Your task to perform on an android device: change your default location settings in chrome Image 0: 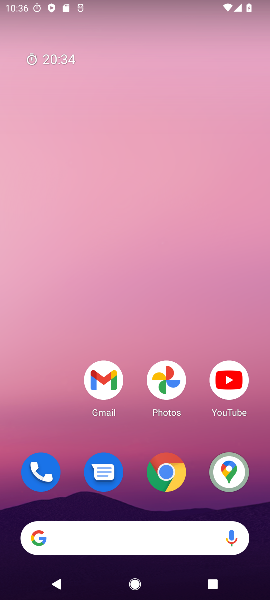
Step 0: click (164, 478)
Your task to perform on an android device: change your default location settings in chrome Image 1: 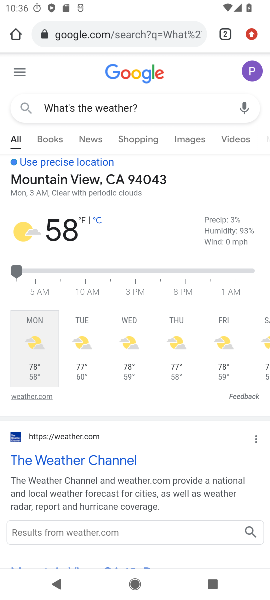
Step 1: click (251, 34)
Your task to perform on an android device: change your default location settings in chrome Image 2: 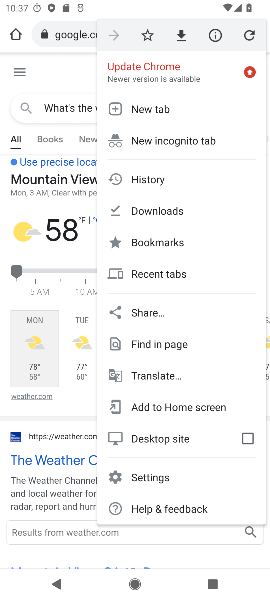
Step 2: click (175, 483)
Your task to perform on an android device: change your default location settings in chrome Image 3: 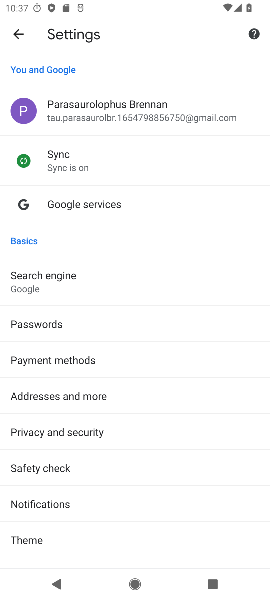
Step 3: drag from (176, 539) to (173, 205)
Your task to perform on an android device: change your default location settings in chrome Image 4: 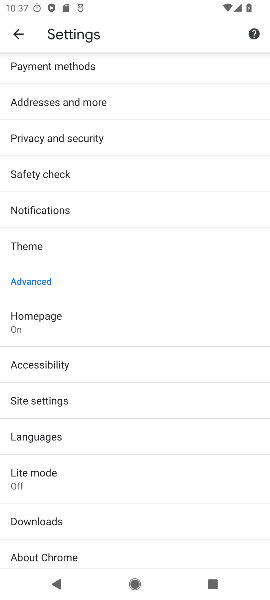
Step 4: click (110, 398)
Your task to perform on an android device: change your default location settings in chrome Image 5: 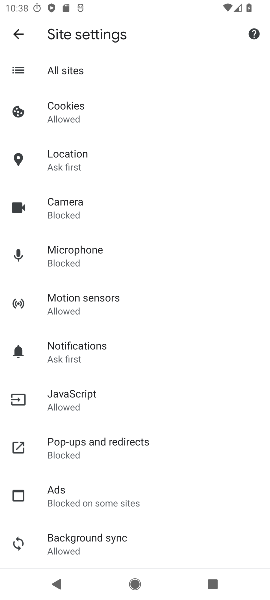
Step 5: click (103, 171)
Your task to perform on an android device: change your default location settings in chrome Image 6: 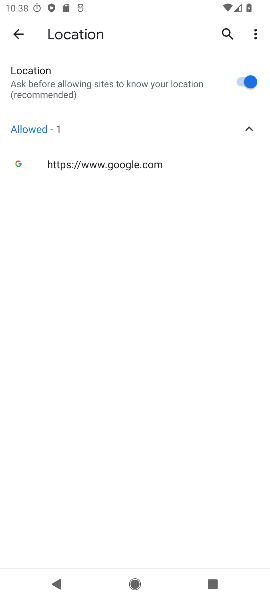
Step 6: click (259, 27)
Your task to perform on an android device: change your default location settings in chrome Image 7: 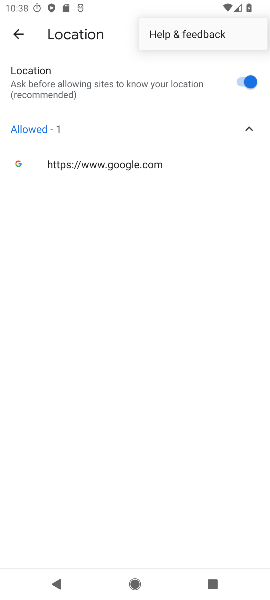
Step 7: task complete